Your task to perform on an android device: Go to Yahoo.com Image 0: 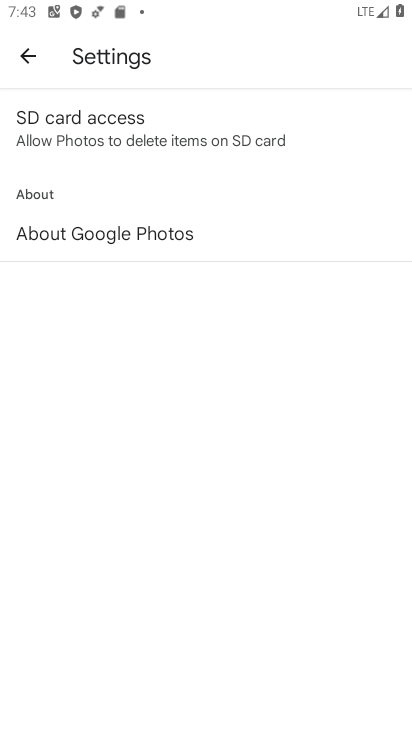
Step 0: press home button
Your task to perform on an android device: Go to Yahoo.com Image 1: 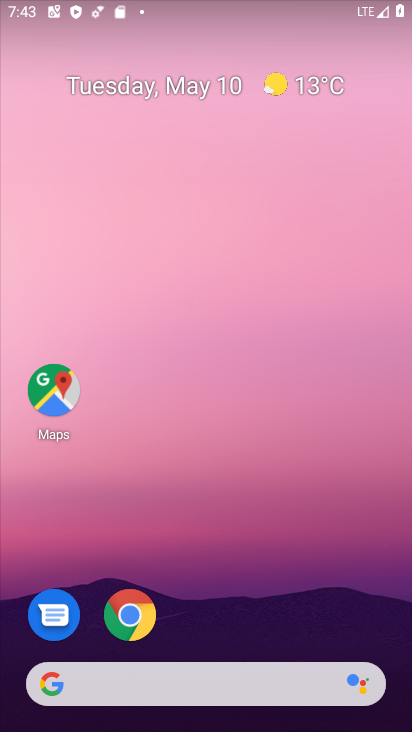
Step 1: drag from (276, 606) to (254, 43)
Your task to perform on an android device: Go to Yahoo.com Image 2: 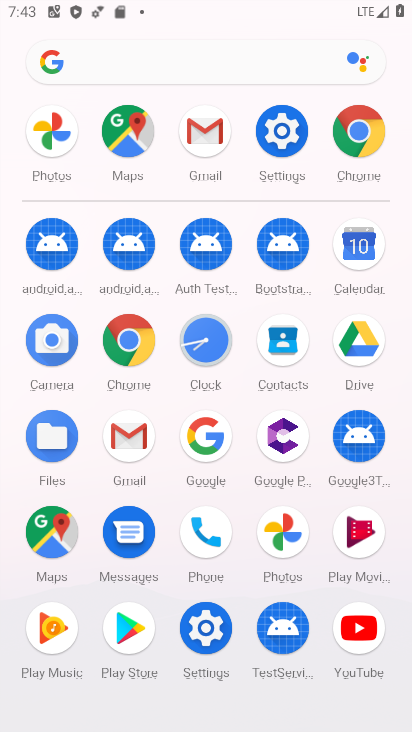
Step 2: click (357, 147)
Your task to perform on an android device: Go to Yahoo.com Image 3: 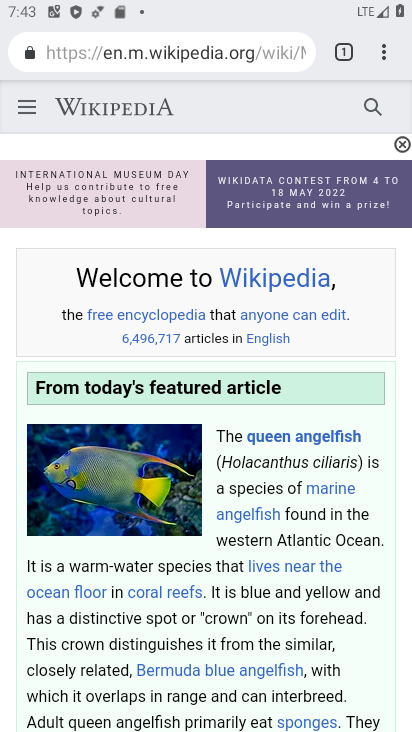
Step 3: click (152, 62)
Your task to perform on an android device: Go to Yahoo.com Image 4: 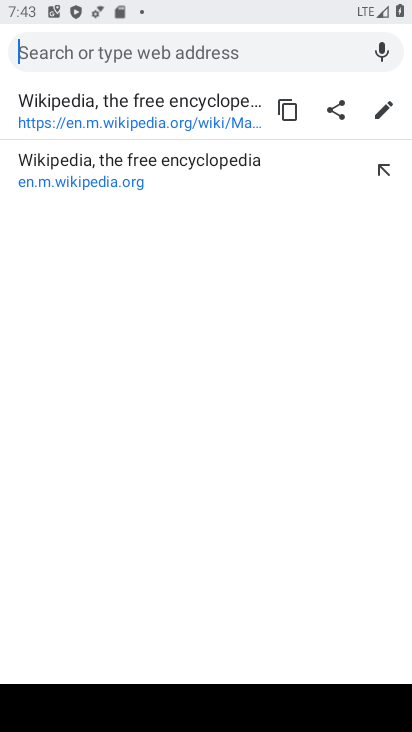
Step 4: type "yahoo.com"
Your task to perform on an android device: Go to Yahoo.com Image 5: 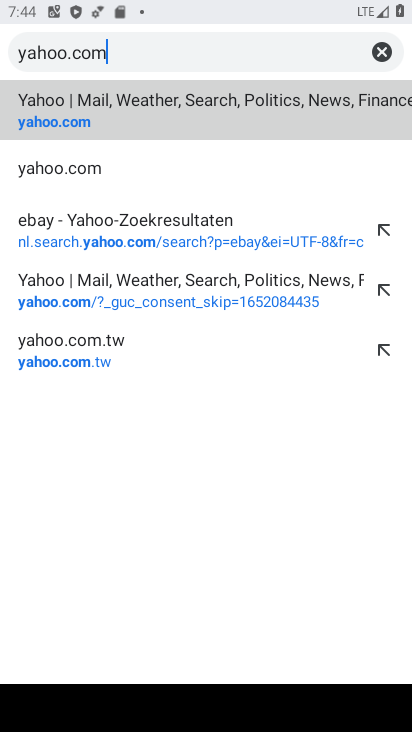
Step 5: click (76, 111)
Your task to perform on an android device: Go to Yahoo.com Image 6: 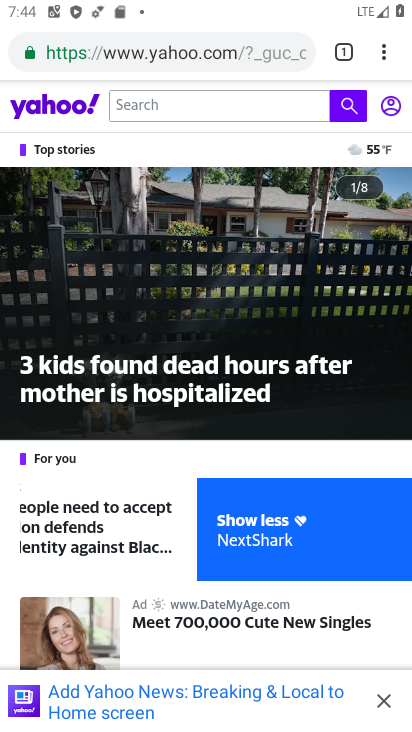
Step 6: task complete